Your task to perform on an android device: Add lg ultragear to the cart on target.com, then select checkout. Image 0: 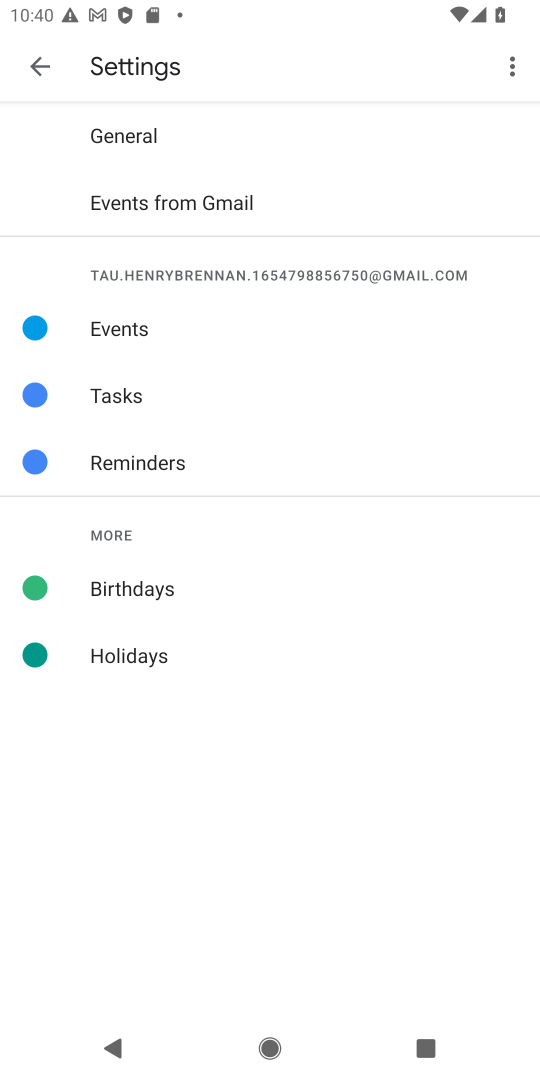
Step 0: press home button
Your task to perform on an android device: Add lg ultragear to the cart on target.com, then select checkout. Image 1: 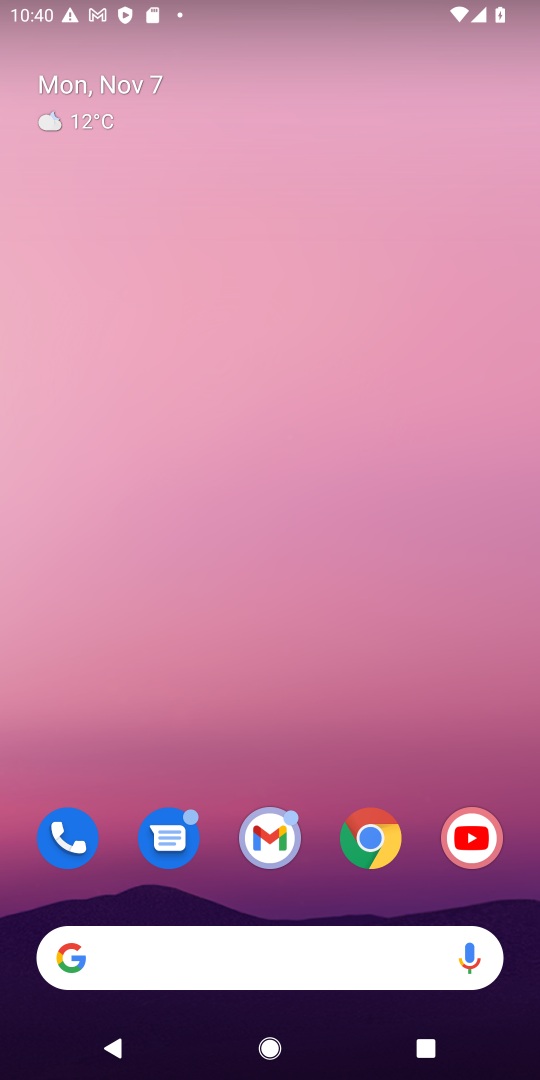
Step 1: click (360, 830)
Your task to perform on an android device: Add lg ultragear to the cart on target.com, then select checkout. Image 2: 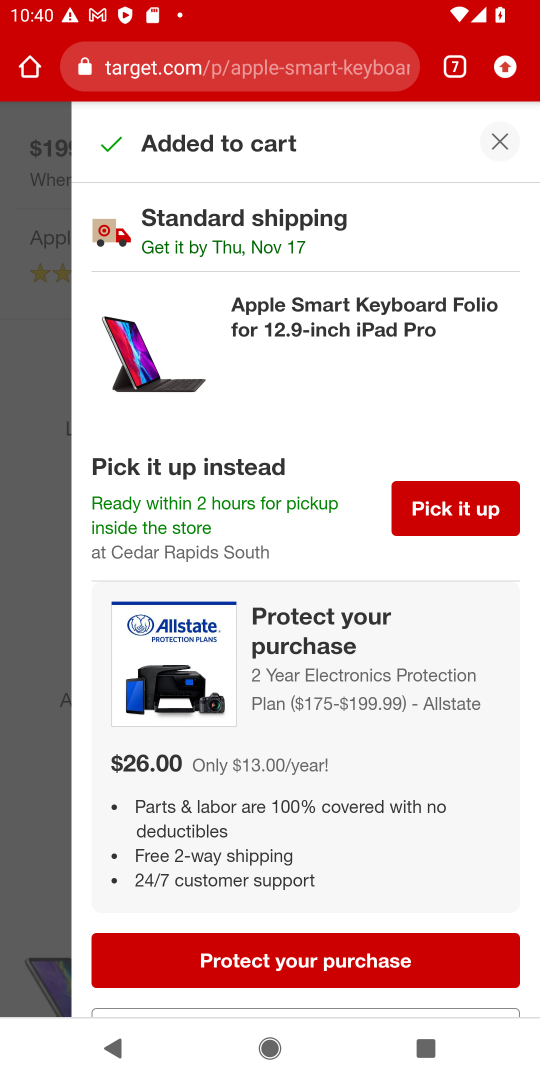
Step 2: click (500, 135)
Your task to perform on an android device: Add lg ultragear to the cart on target.com, then select checkout. Image 3: 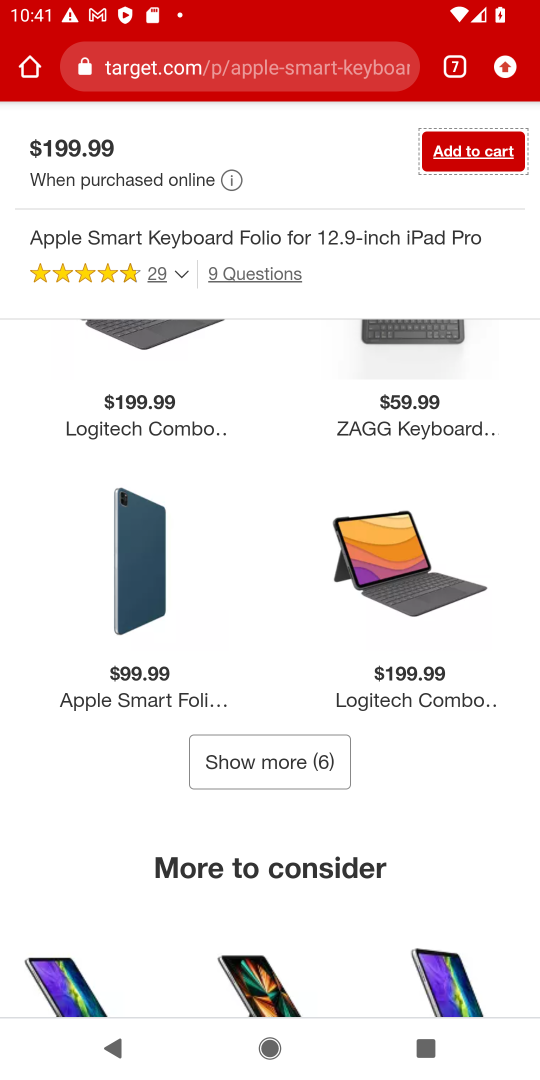
Step 3: drag from (347, 156) to (321, 766)
Your task to perform on an android device: Add lg ultragear to the cart on target.com, then select checkout. Image 4: 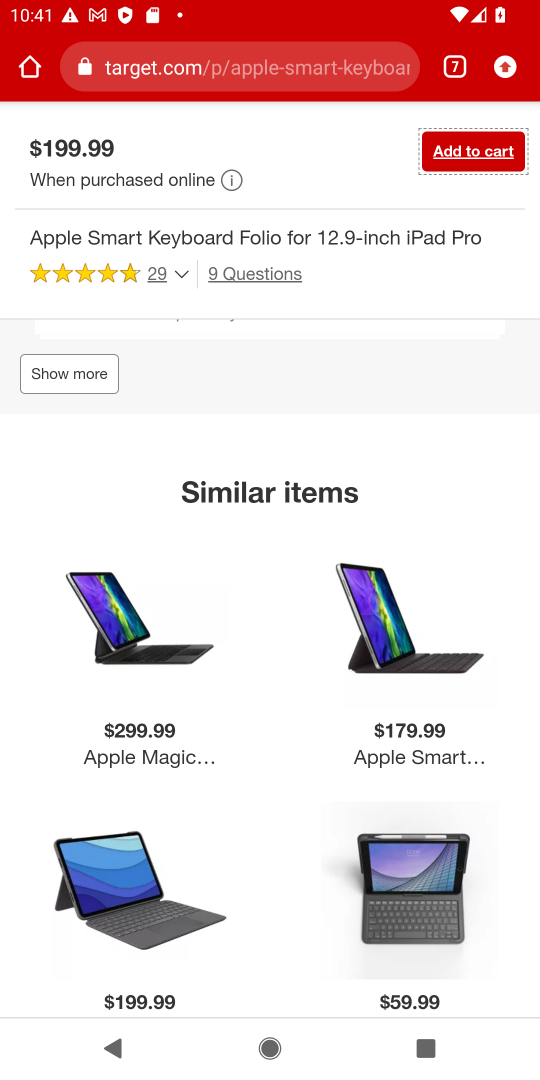
Step 4: drag from (319, 132) to (302, 522)
Your task to perform on an android device: Add lg ultragear to the cart on target.com, then select checkout. Image 5: 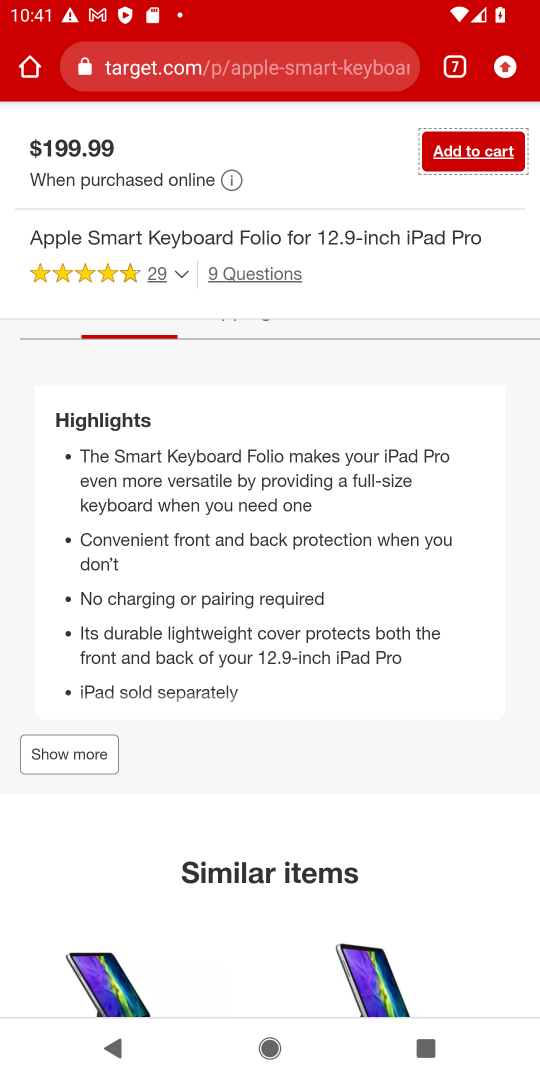
Step 5: drag from (321, 167) to (334, 627)
Your task to perform on an android device: Add lg ultragear to the cart on target.com, then select checkout. Image 6: 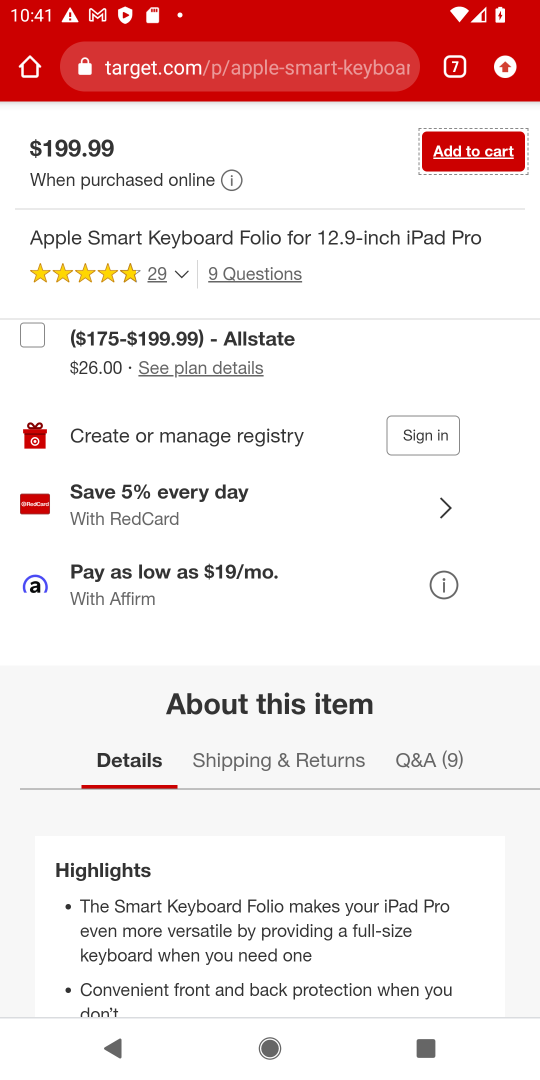
Step 6: press back button
Your task to perform on an android device: Add lg ultragear to the cart on target.com, then select checkout. Image 7: 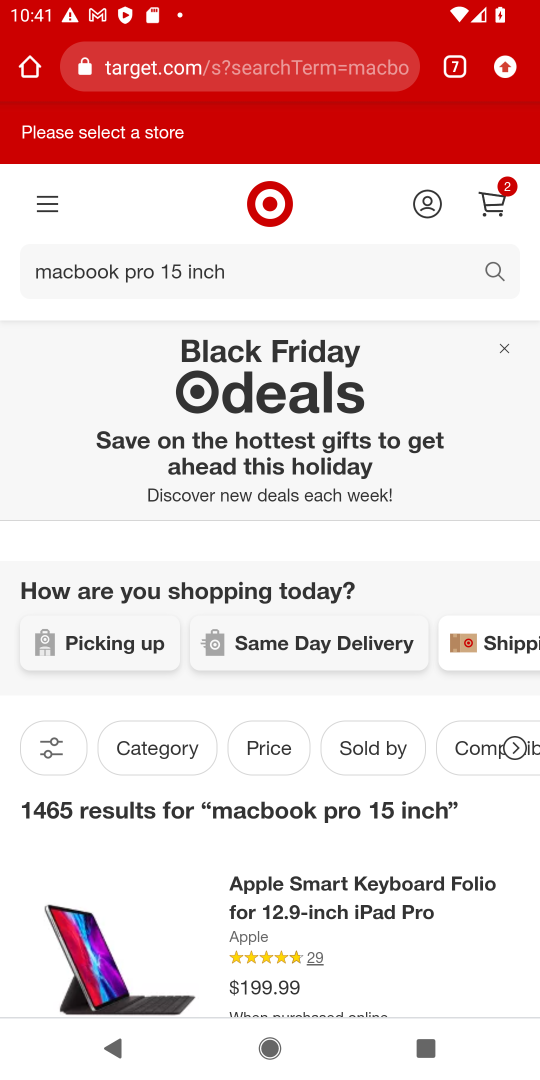
Step 7: click (302, 263)
Your task to perform on an android device: Add lg ultragear to the cart on target.com, then select checkout. Image 8: 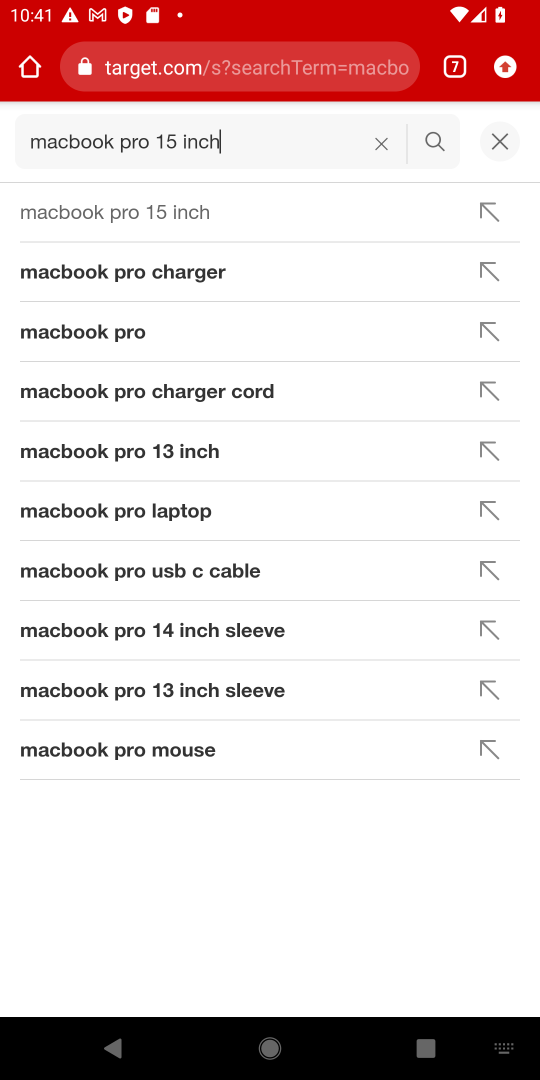
Step 8: click (384, 146)
Your task to perform on an android device: Add lg ultragear to the cart on target.com, then select checkout. Image 9: 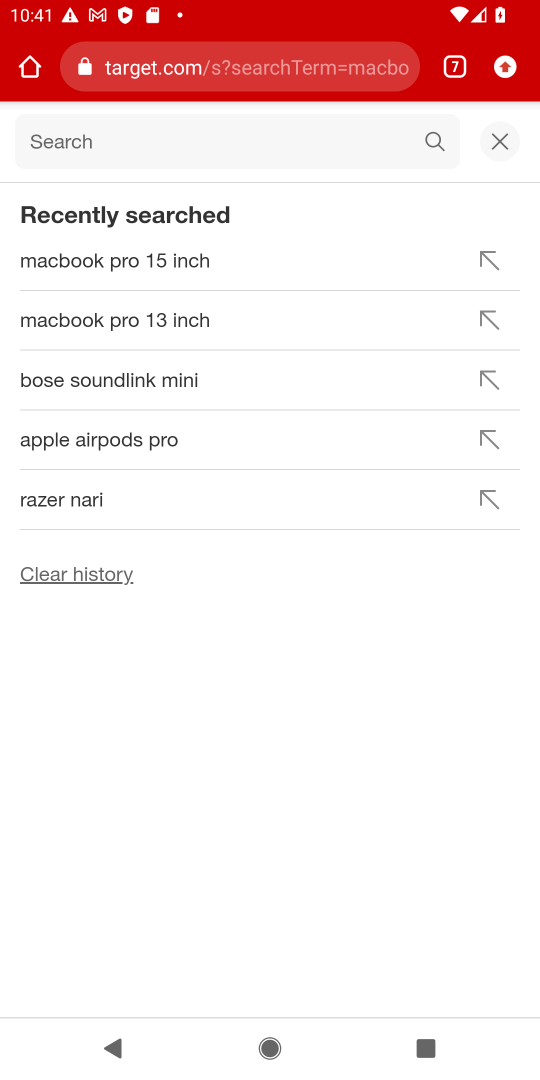
Step 9: type "lg ultragear"
Your task to perform on an android device: Add lg ultragear to the cart on target.com, then select checkout. Image 10: 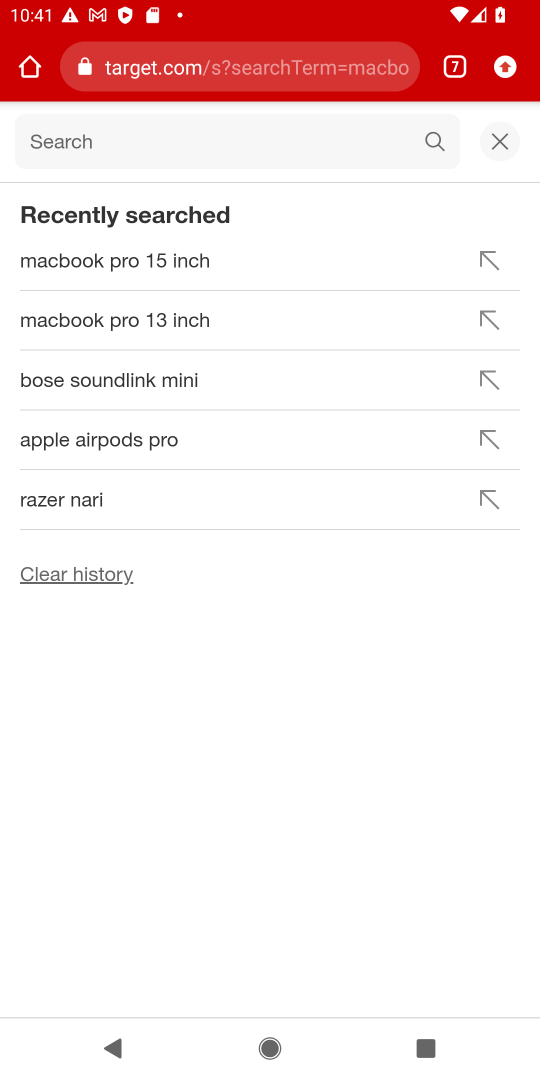
Step 10: click (379, 135)
Your task to perform on an android device: Add lg ultragear to the cart on target.com, then select checkout. Image 11: 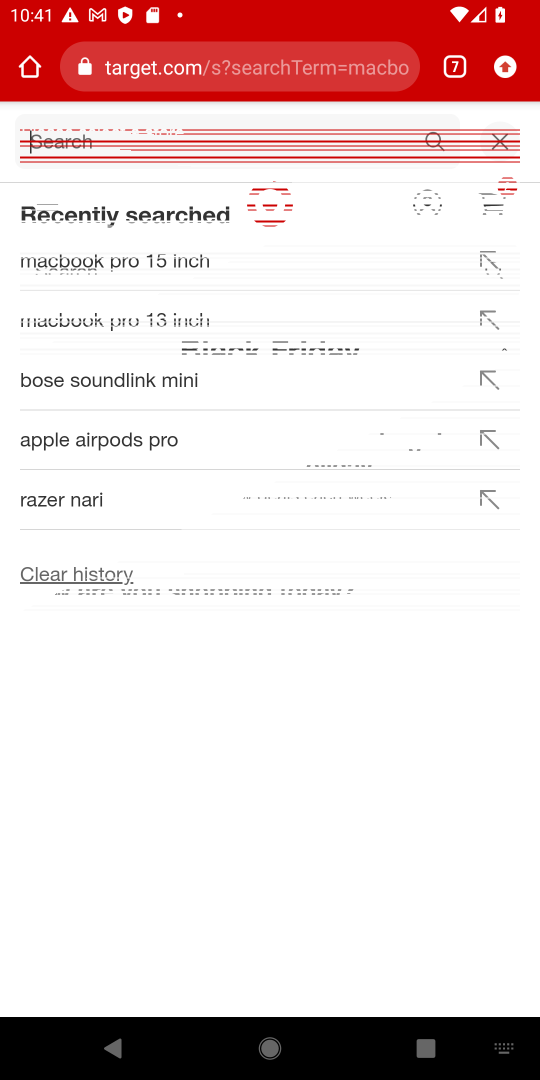
Step 11: type "lg ultragear"
Your task to perform on an android device: Add lg ultragear to the cart on target.com, then select checkout. Image 12: 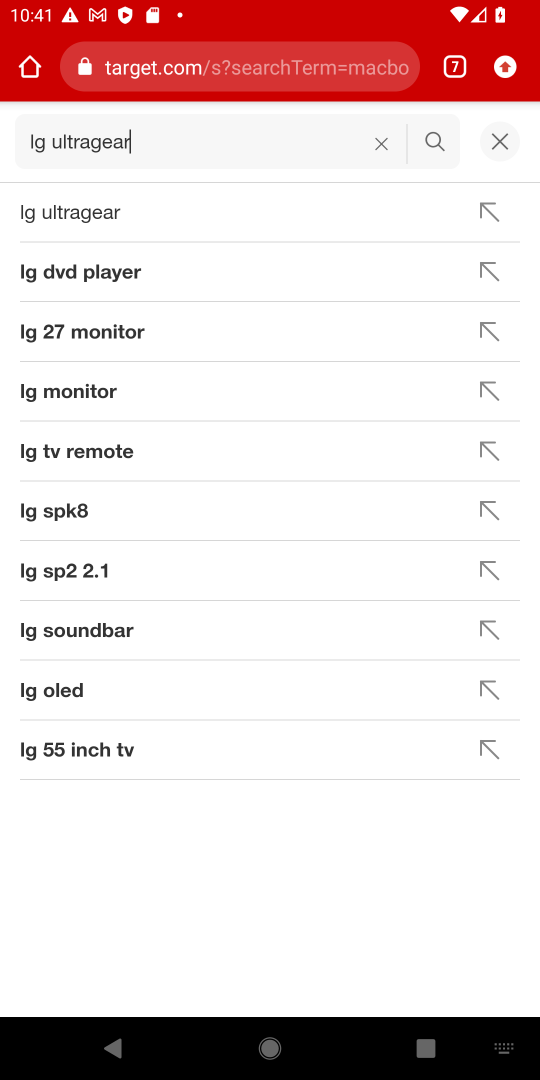
Step 12: click (55, 205)
Your task to perform on an android device: Add lg ultragear to the cart on target.com, then select checkout. Image 13: 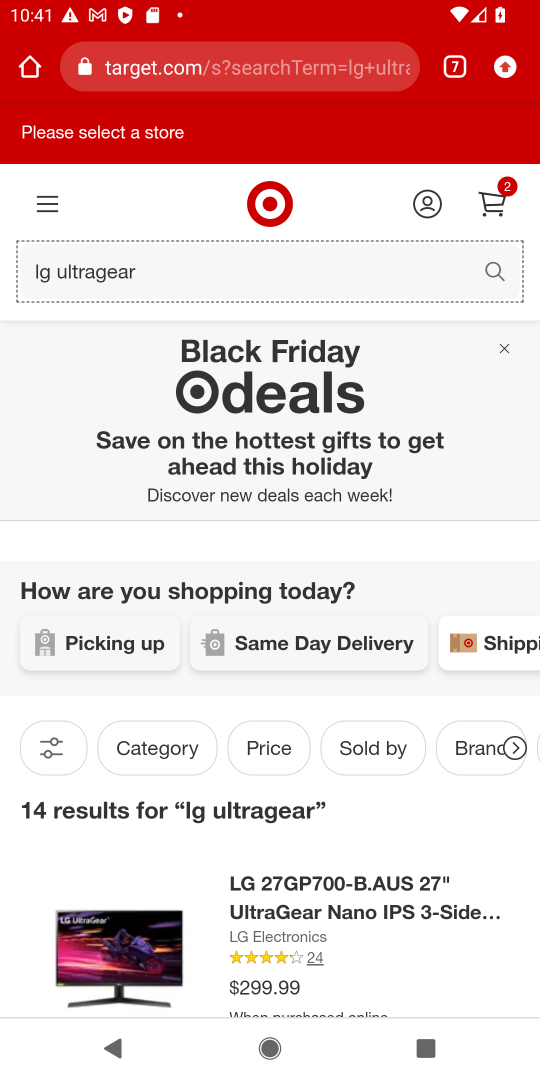
Step 13: click (347, 885)
Your task to perform on an android device: Add lg ultragear to the cart on target.com, then select checkout. Image 14: 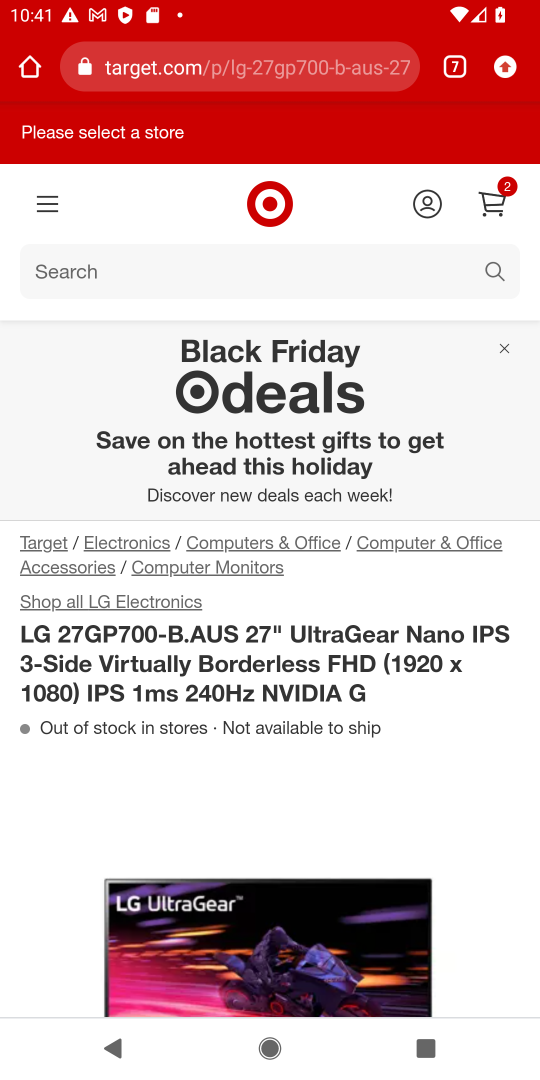
Step 14: drag from (480, 996) to (450, 189)
Your task to perform on an android device: Add lg ultragear to the cart on target.com, then select checkout. Image 15: 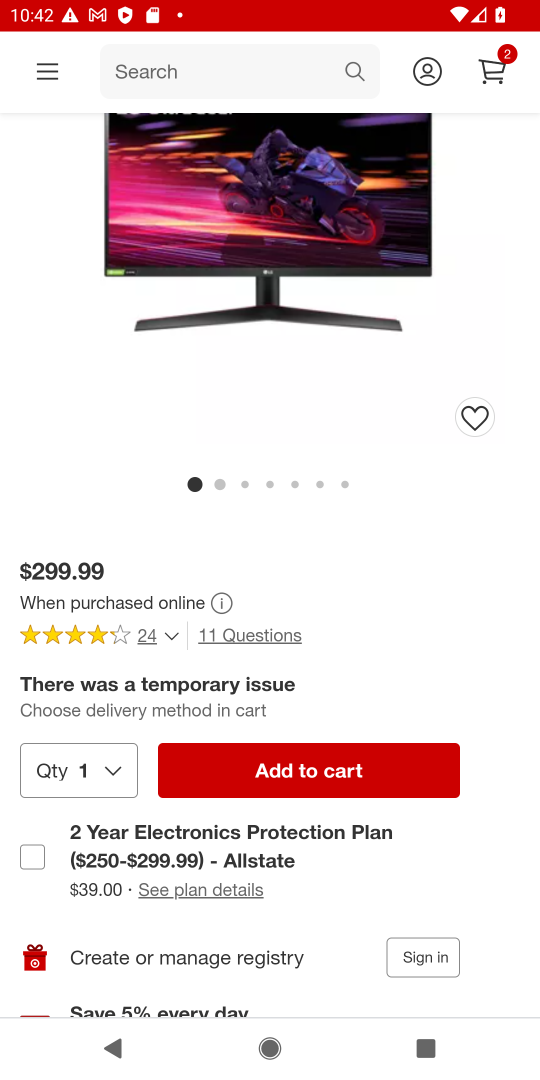
Step 15: click (291, 780)
Your task to perform on an android device: Add lg ultragear to the cart on target.com, then select checkout. Image 16: 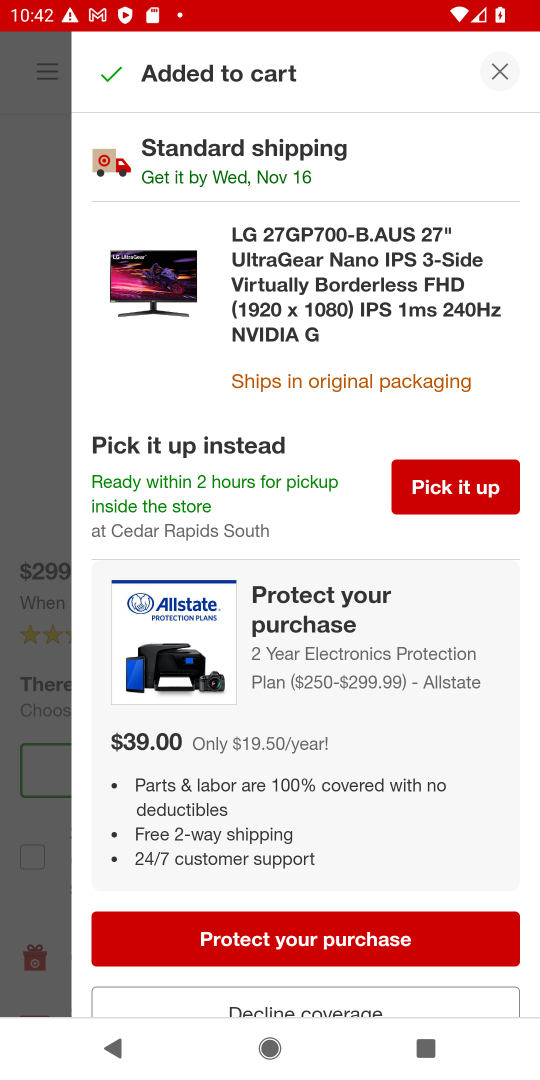
Step 16: click (497, 69)
Your task to perform on an android device: Add lg ultragear to the cart on target.com, then select checkout. Image 17: 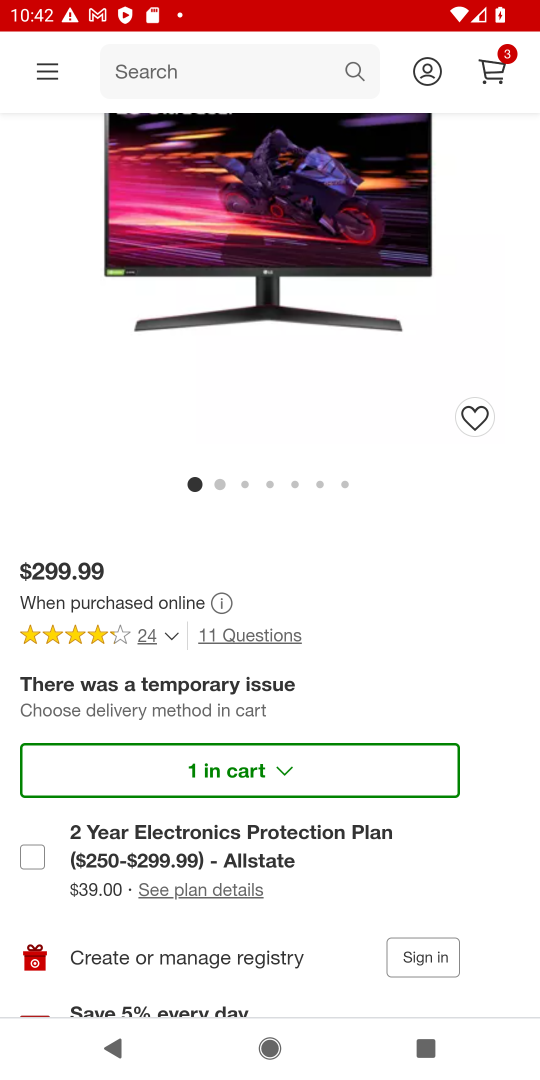
Step 17: click (496, 73)
Your task to perform on an android device: Add lg ultragear to the cart on target.com, then select checkout. Image 18: 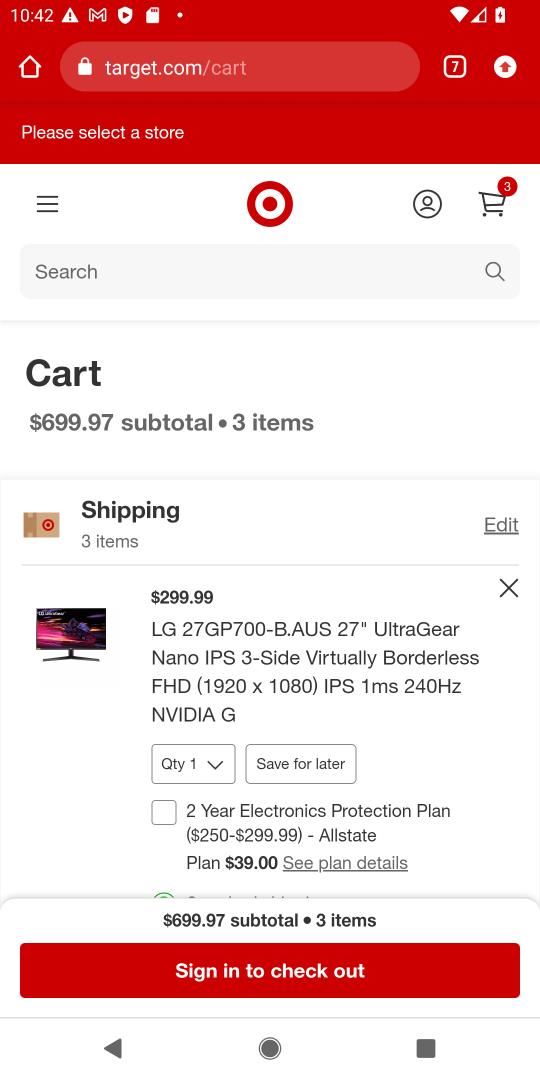
Step 18: click (311, 970)
Your task to perform on an android device: Add lg ultragear to the cart on target.com, then select checkout. Image 19: 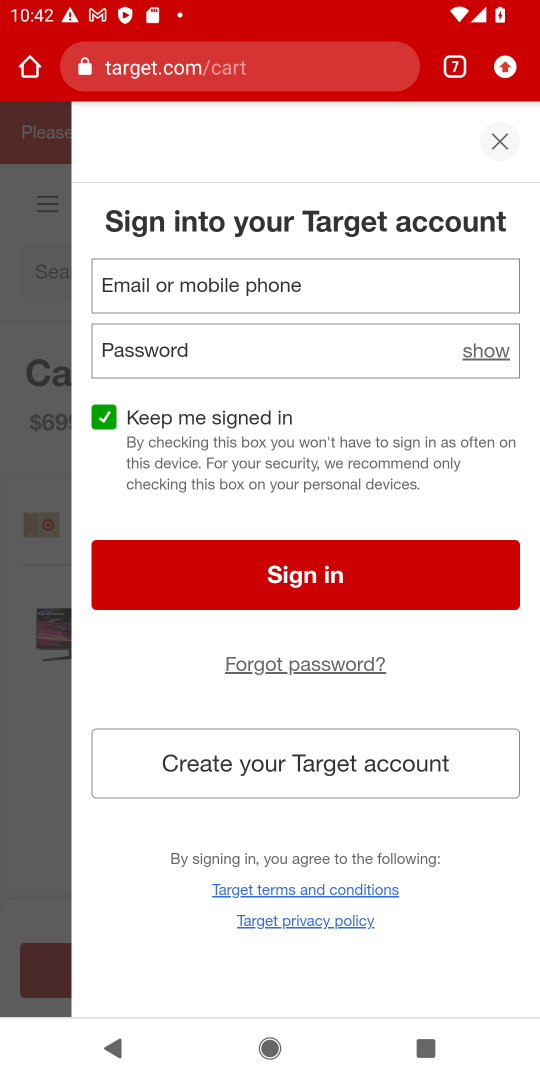
Step 19: task complete